Your task to perform on an android device: Open calendar and show me the third week of next month Image 0: 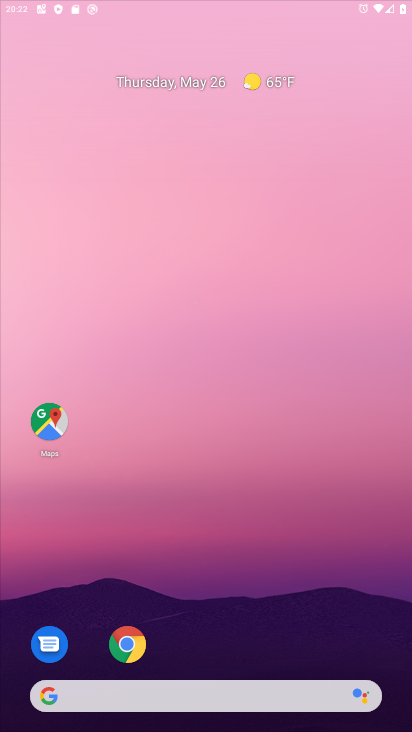
Step 0: click (271, 289)
Your task to perform on an android device: Open calendar and show me the third week of next month Image 1: 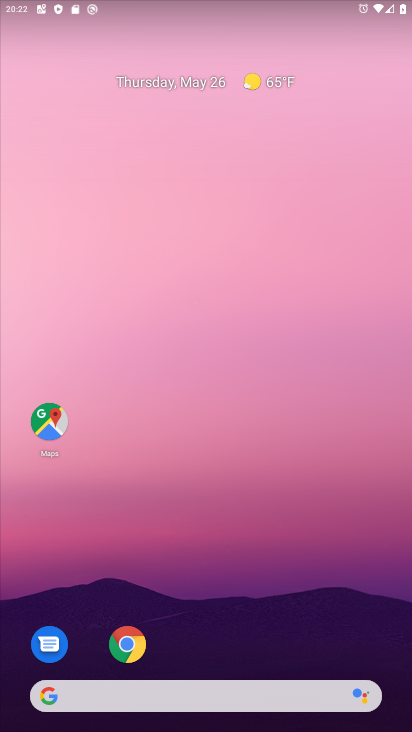
Step 1: drag from (207, 643) to (311, 143)
Your task to perform on an android device: Open calendar and show me the third week of next month Image 2: 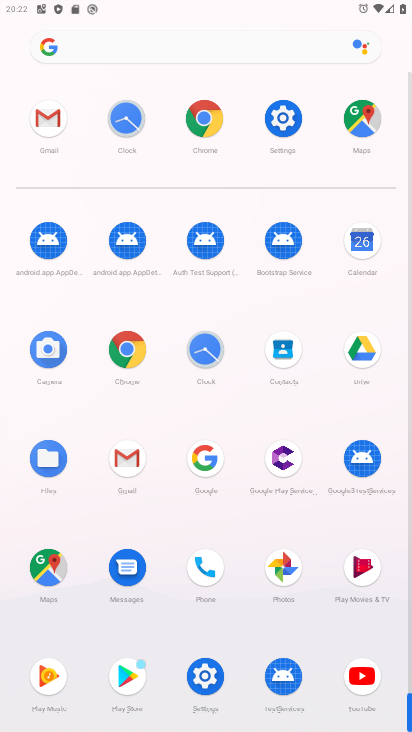
Step 2: click (360, 241)
Your task to perform on an android device: Open calendar and show me the third week of next month Image 3: 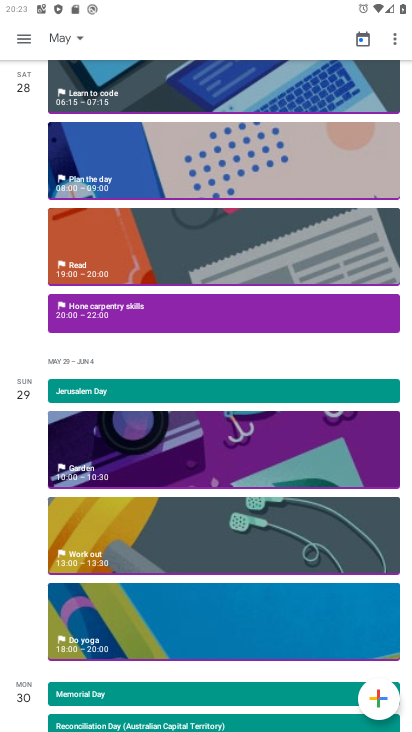
Step 3: click (75, 34)
Your task to perform on an android device: Open calendar and show me the third week of next month Image 4: 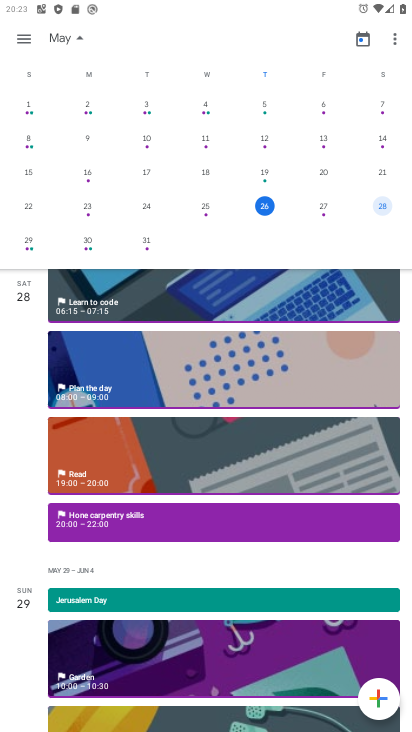
Step 4: drag from (385, 147) to (95, 123)
Your task to perform on an android device: Open calendar and show me the third week of next month Image 5: 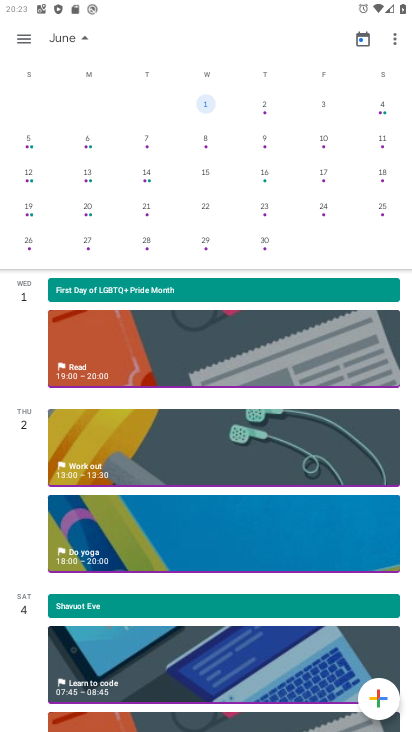
Step 5: click (265, 172)
Your task to perform on an android device: Open calendar and show me the third week of next month Image 6: 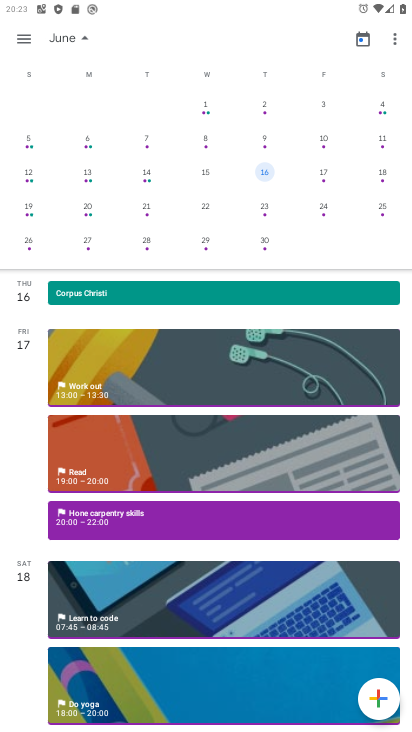
Step 6: task complete